Your task to perform on an android device: Open ESPN.com Image 0: 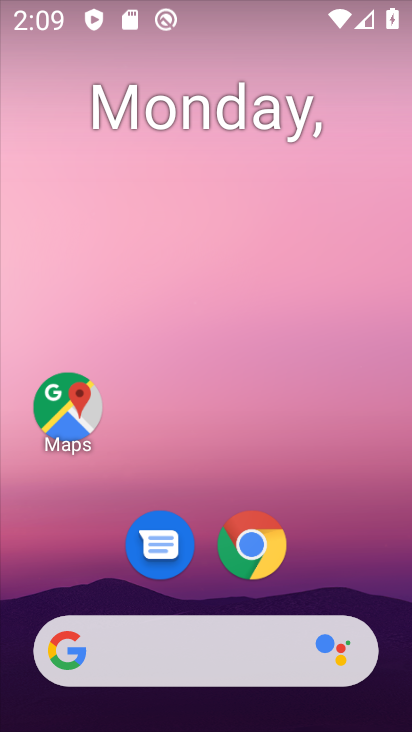
Step 0: click (278, 554)
Your task to perform on an android device: Open ESPN.com Image 1: 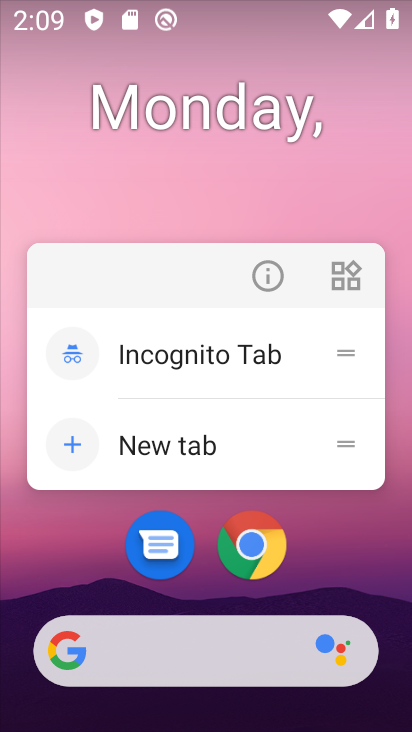
Step 1: click (253, 547)
Your task to perform on an android device: Open ESPN.com Image 2: 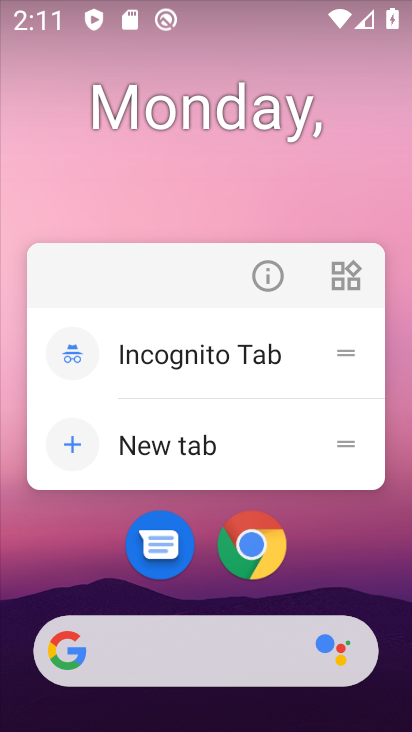
Step 2: click (253, 547)
Your task to perform on an android device: Open ESPN.com Image 3: 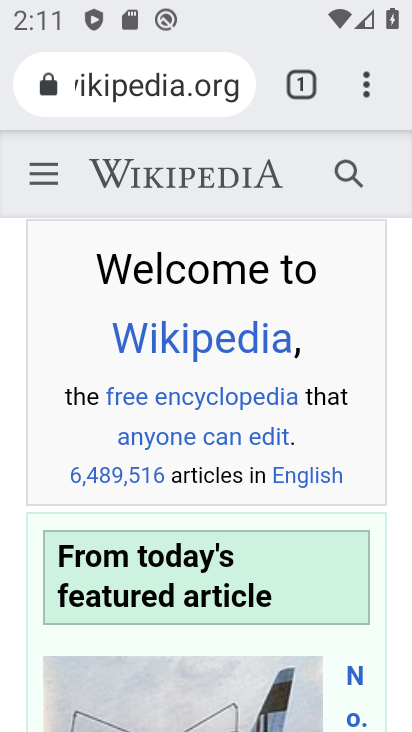
Step 3: click (306, 76)
Your task to perform on an android device: Open ESPN.com Image 4: 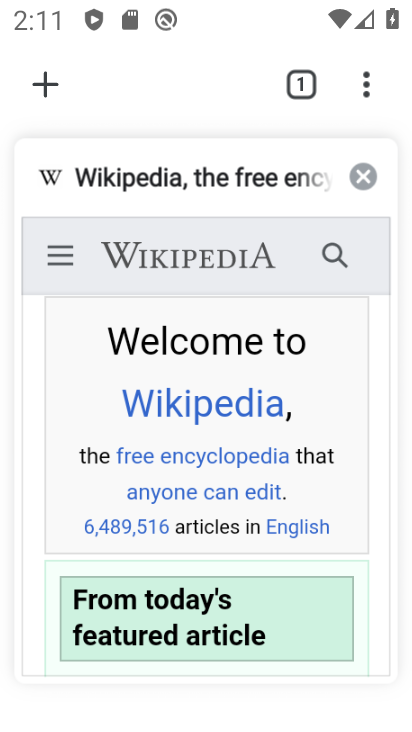
Step 4: click (38, 74)
Your task to perform on an android device: Open ESPN.com Image 5: 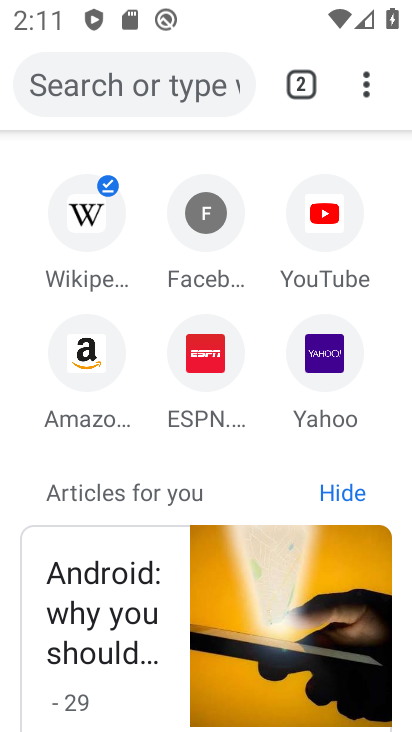
Step 5: click (216, 368)
Your task to perform on an android device: Open ESPN.com Image 6: 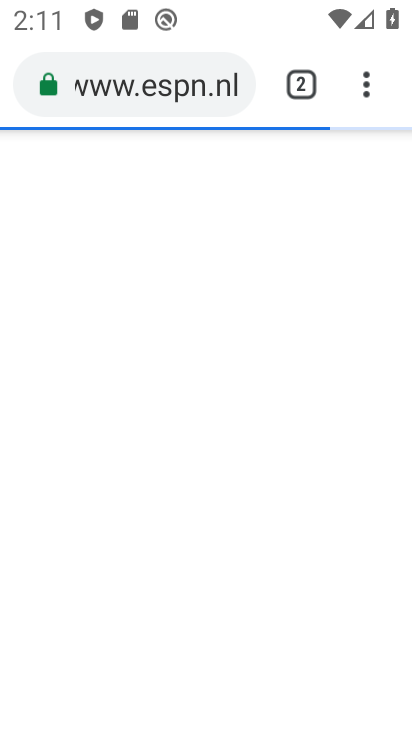
Step 6: task complete